Your task to perform on an android device: delete a single message in the gmail app Image 0: 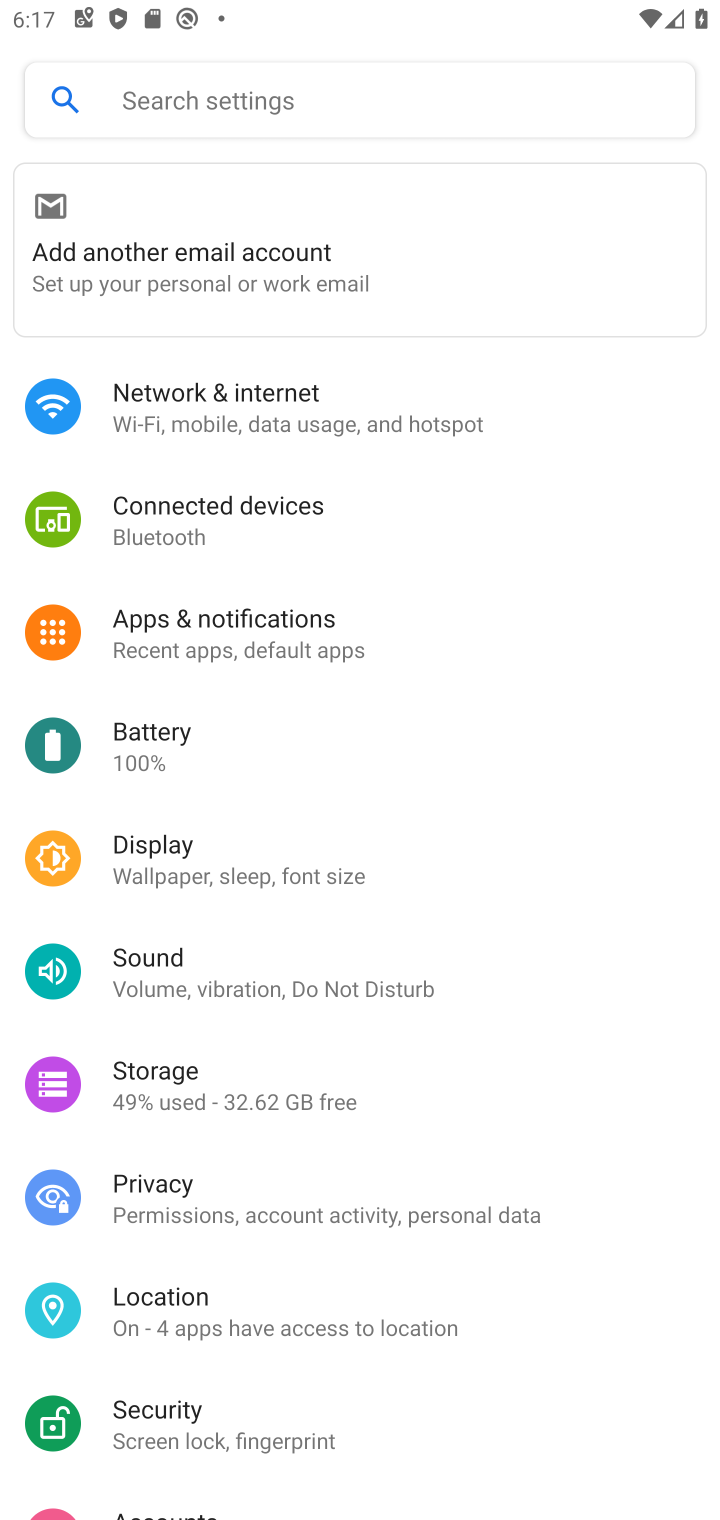
Step 0: press back button
Your task to perform on an android device: delete a single message in the gmail app Image 1: 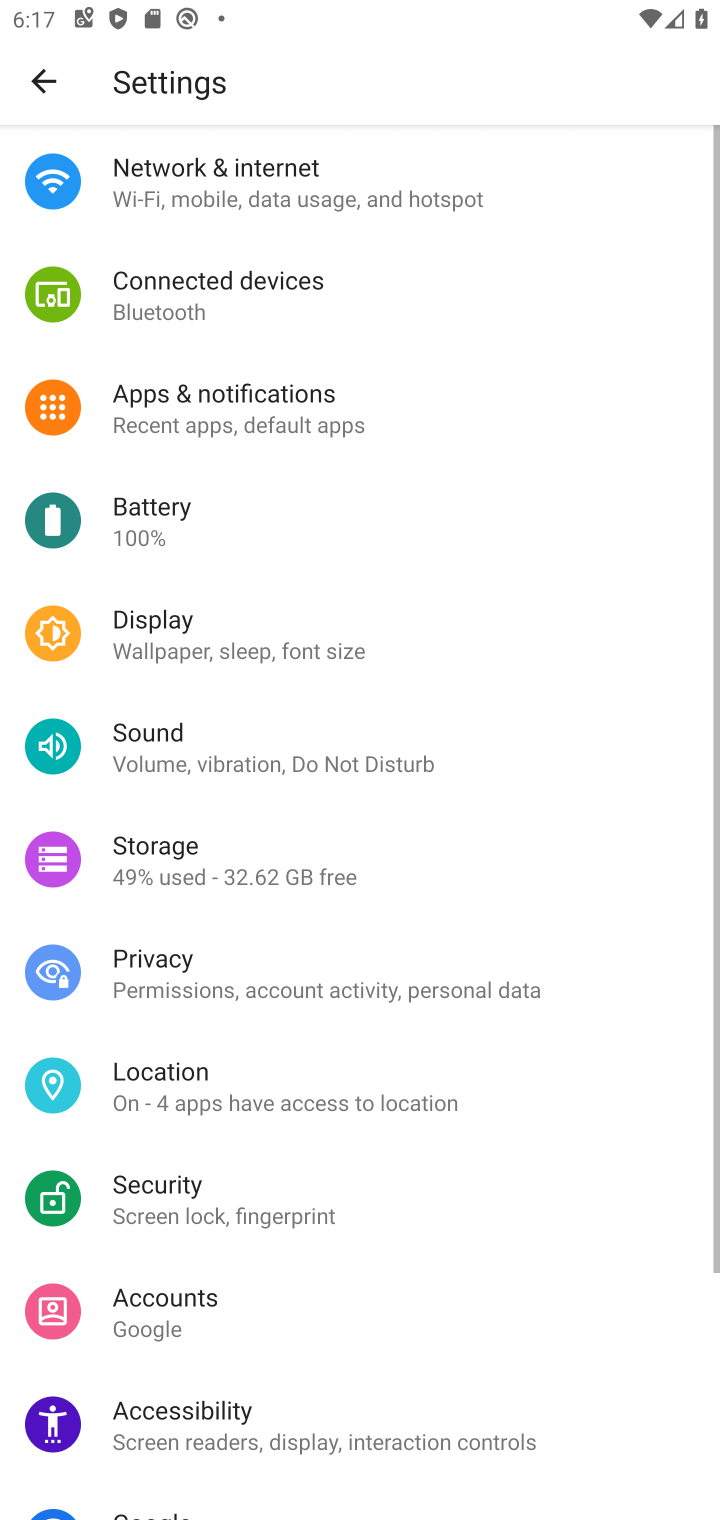
Step 1: press back button
Your task to perform on an android device: delete a single message in the gmail app Image 2: 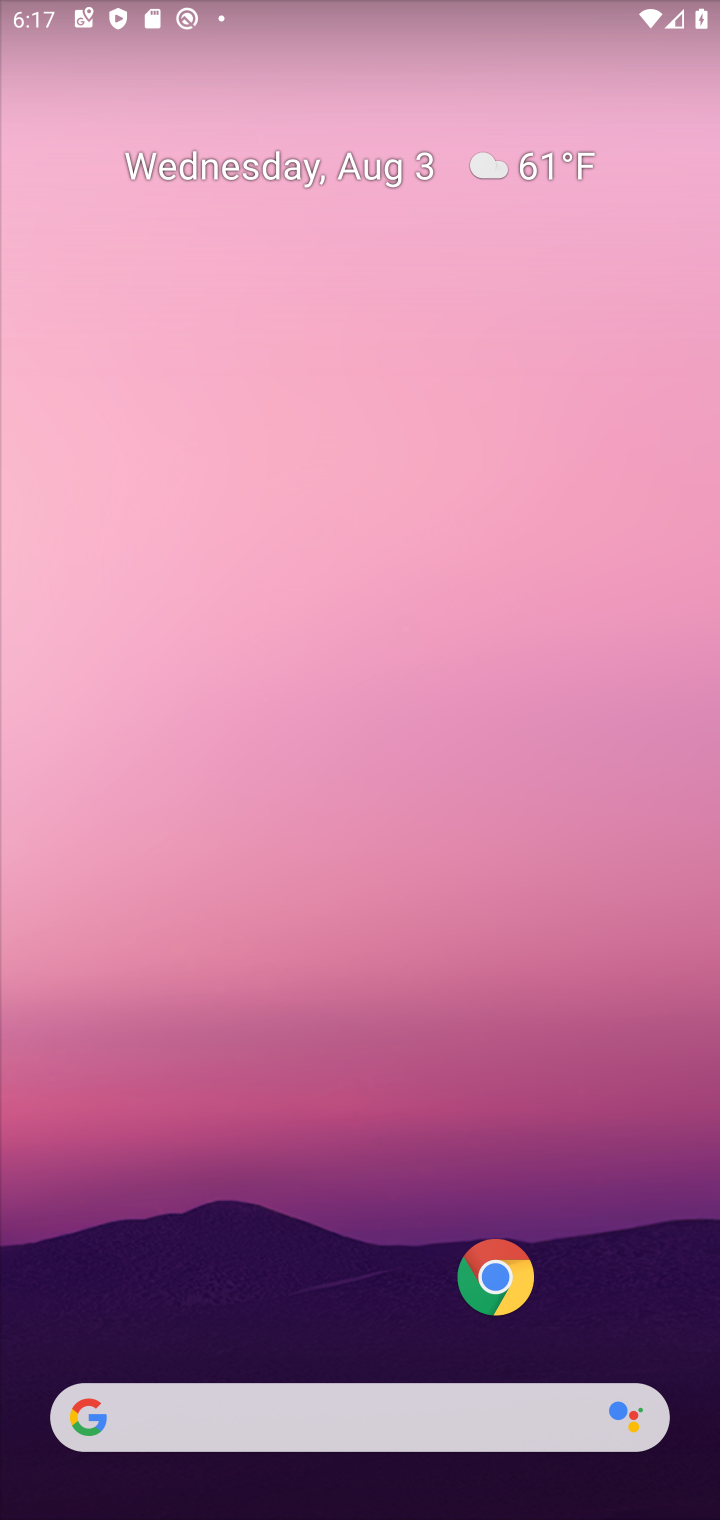
Step 2: drag from (290, 1351) to (237, 199)
Your task to perform on an android device: delete a single message in the gmail app Image 3: 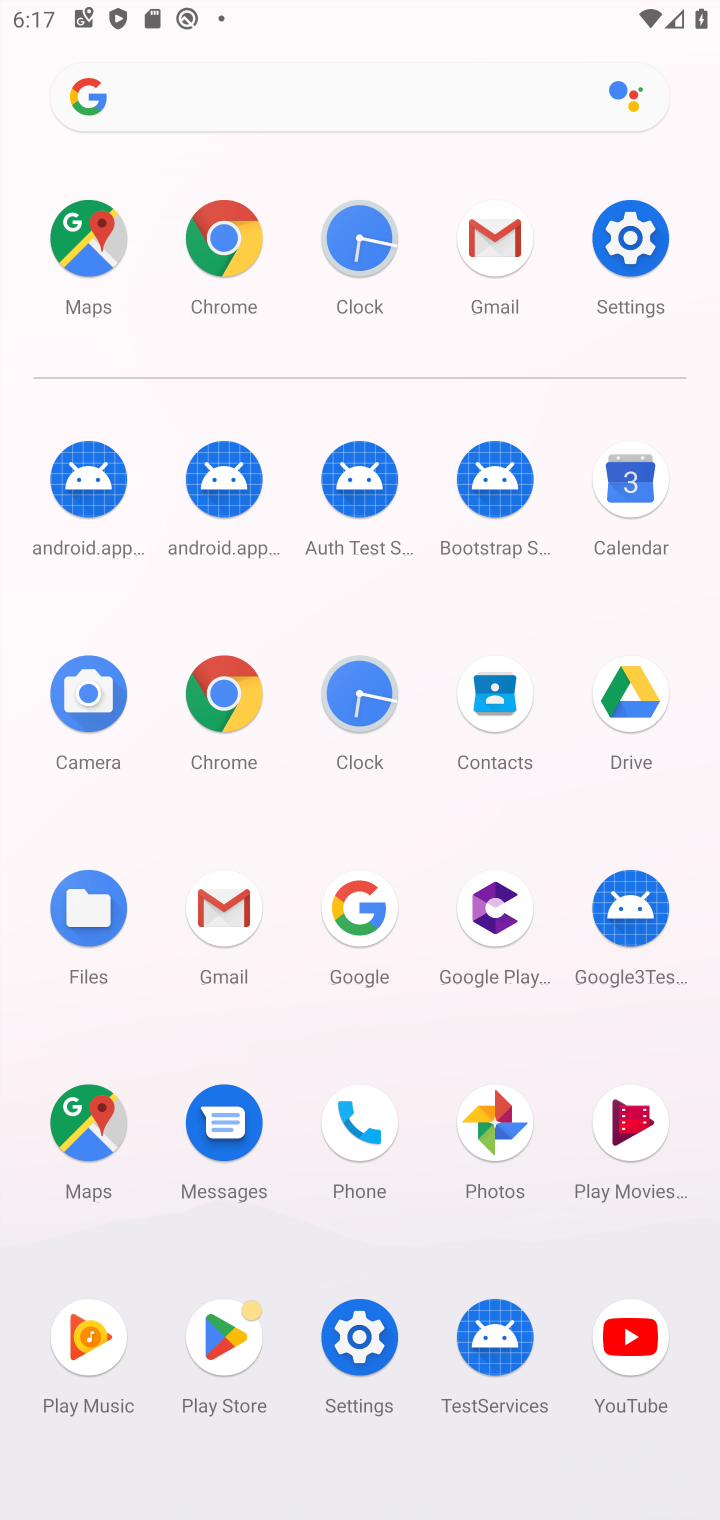
Step 3: click (481, 248)
Your task to perform on an android device: delete a single message in the gmail app Image 4: 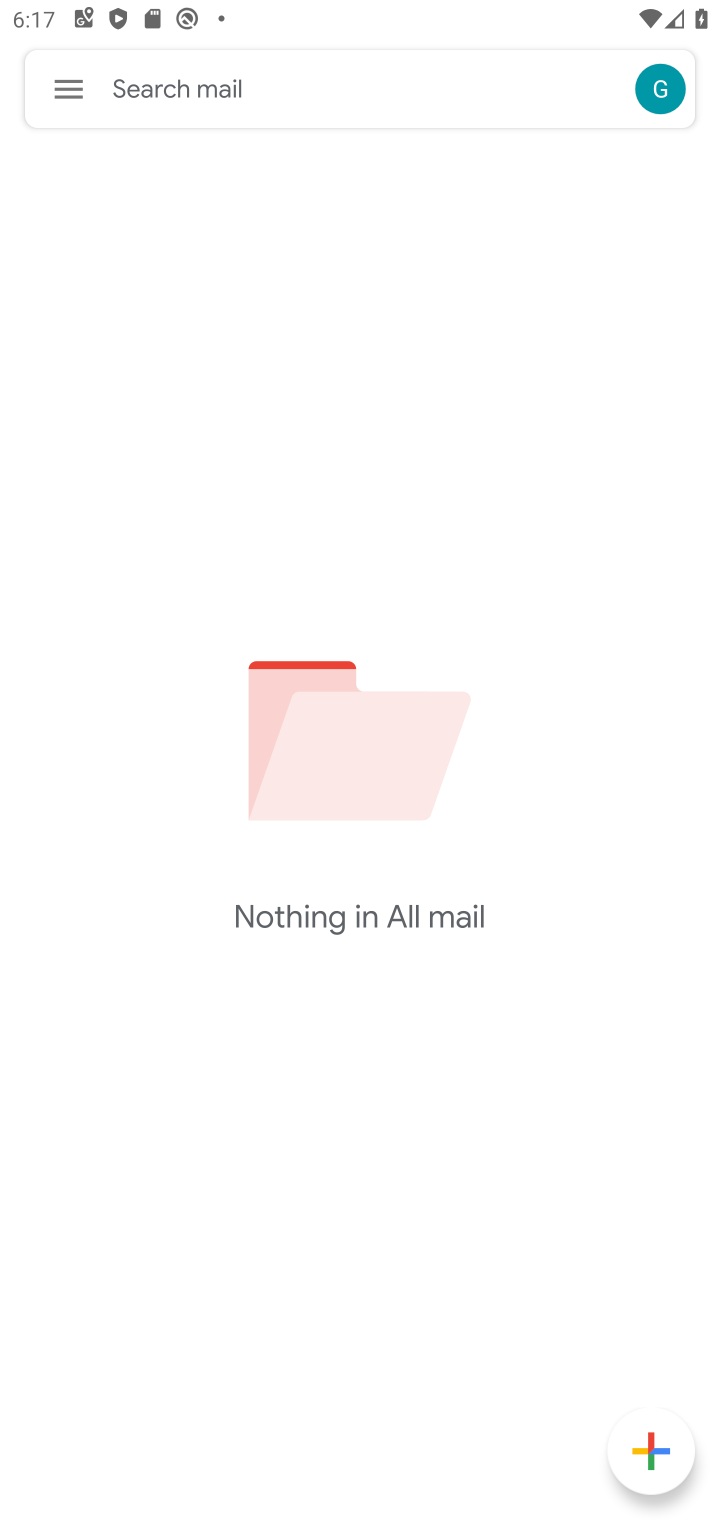
Step 4: task complete